Your task to perform on an android device: turn on sleep mode Image 0: 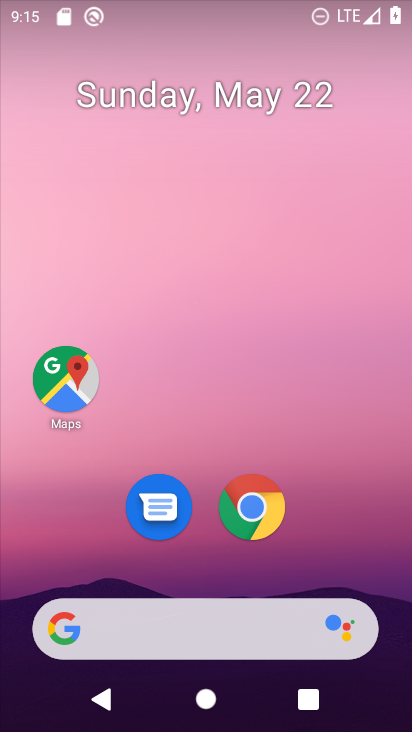
Step 0: drag from (263, 626) to (342, 48)
Your task to perform on an android device: turn on sleep mode Image 1: 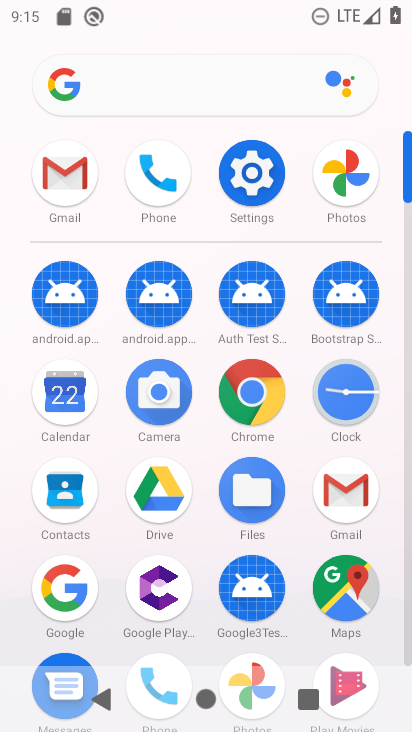
Step 1: click (257, 164)
Your task to perform on an android device: turn on sleep mode Image 2: 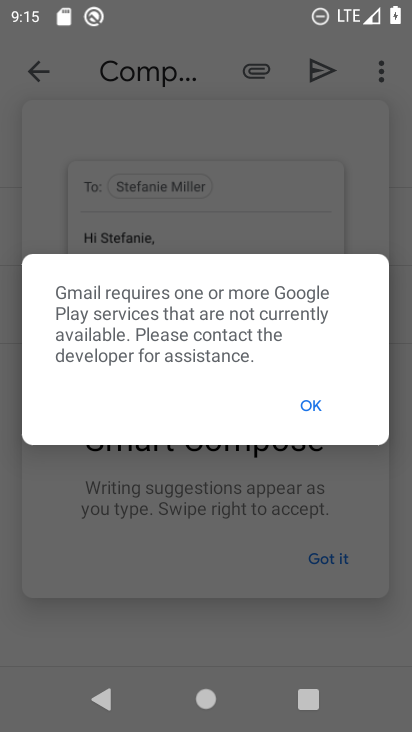
Step 2: press home button
Your task to perform on an android device: turn on sleep mode Image 3: 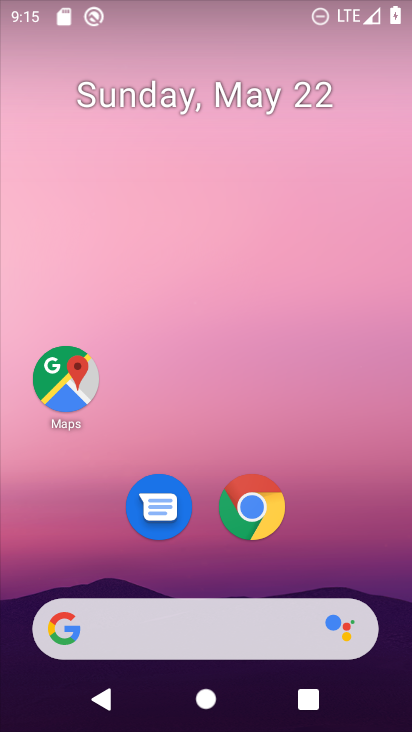
Step 3: drag from (260, 701) to (266, 28)
Your task to perform on an android device: turn on sleep mode Image 4: 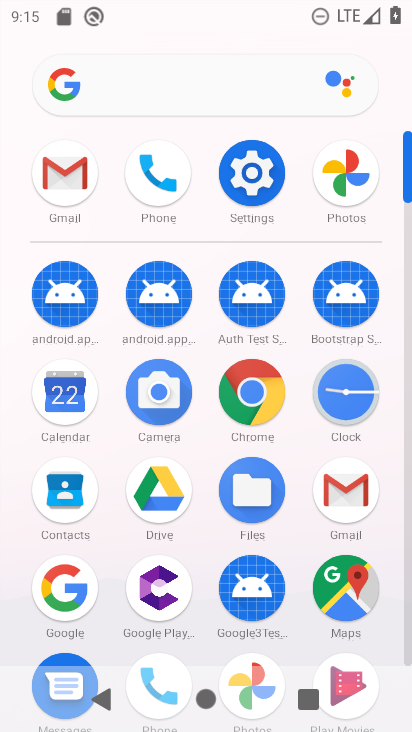
Step 4: click (263, 155)
Your task to perform on an android device: turn on sleep mode Image 5: 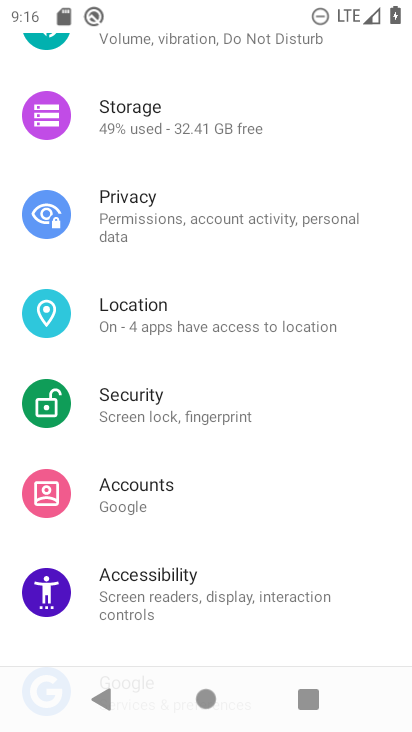
Step 5: drag from (330, 102) to (342, 453)
Your task to perform on an android device: turn on sleep mode Image 6: 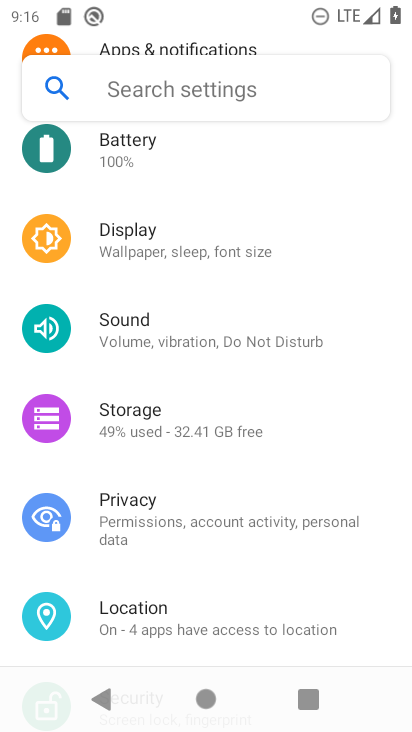
Step 6: click (218, 243)
Your task to perform on an android device: turn on sleep mode Image 7: 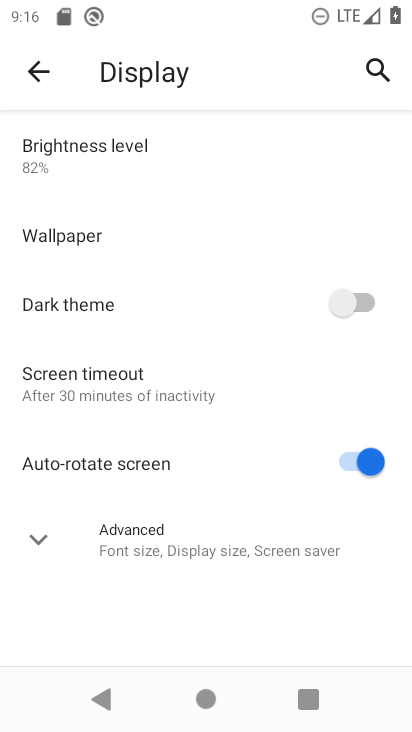
Step 7: task complete